Your task to perform on an android device: install app "Microsoft Outlook" Image 0: 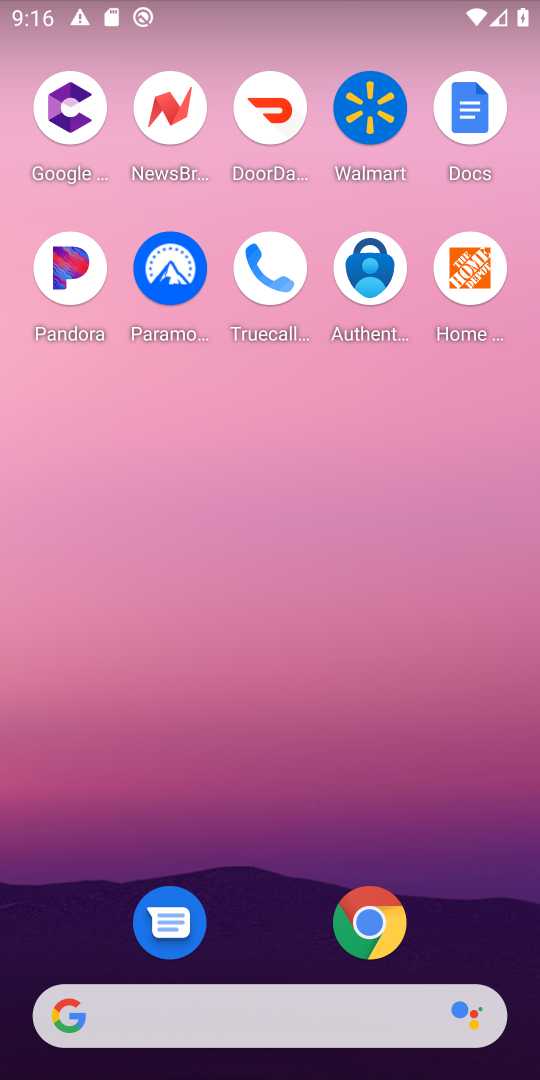
Step 0: drag from (302, 873) to (379, 193)
Your task to perform on an android device: install app "Microsoft Outlook" Image 1: 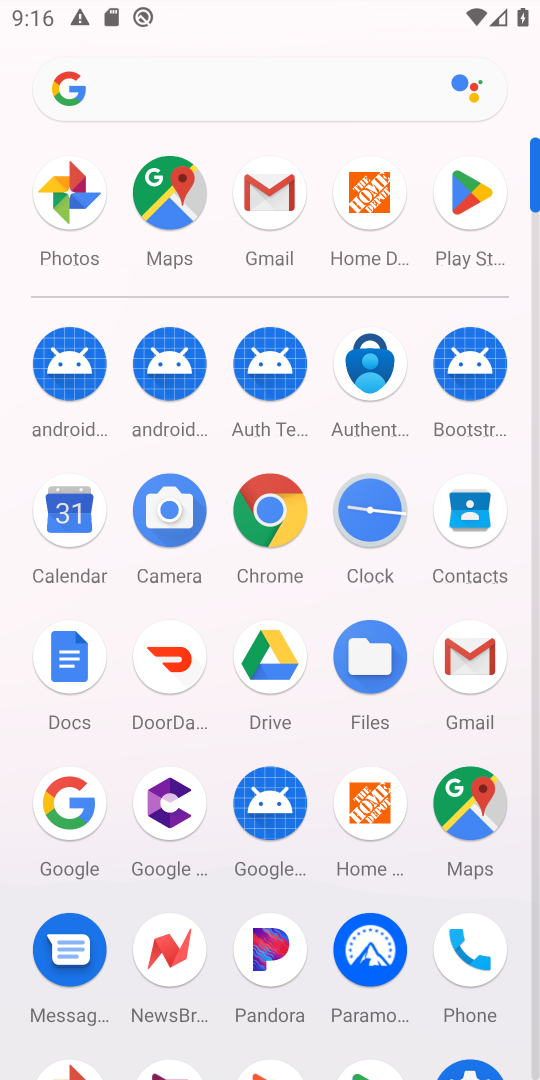
Step 1: click (488, 187)
Your task to perform on an android device: install app "Microsoft Outlook" Image 2: 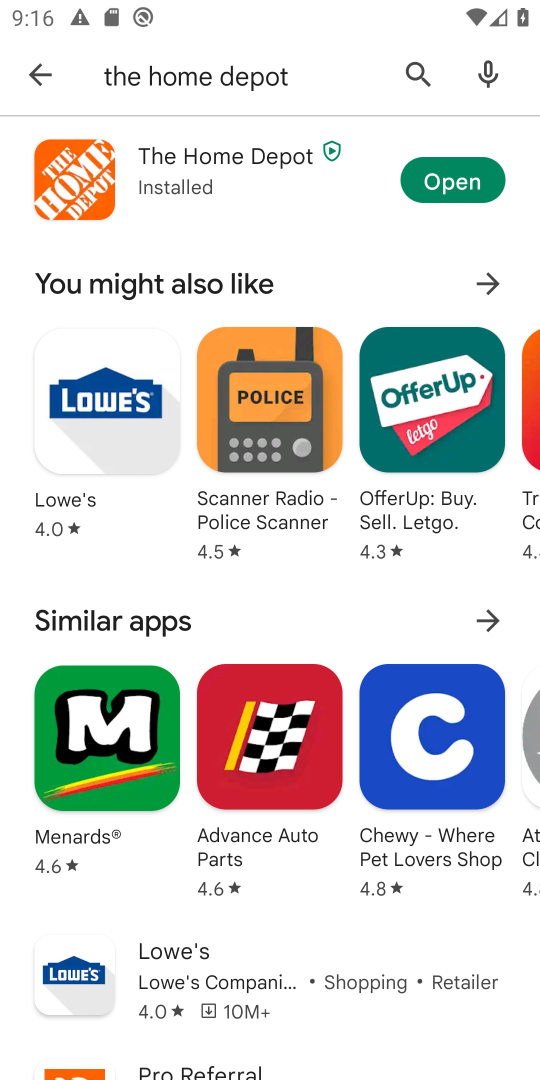
Step 2: click (412, 67)
Your task to perform on an android device: install app "Microsoft Outlook" Image 3: 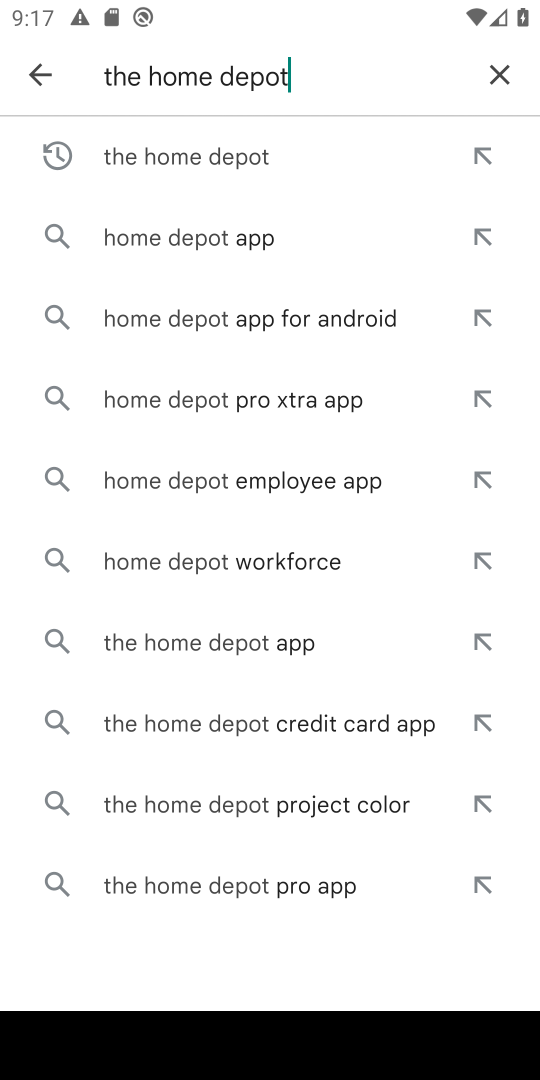
Step 3: click (494, 77)
Your task to perform on an android device: install app "Microsoft Outlook" Image 4: 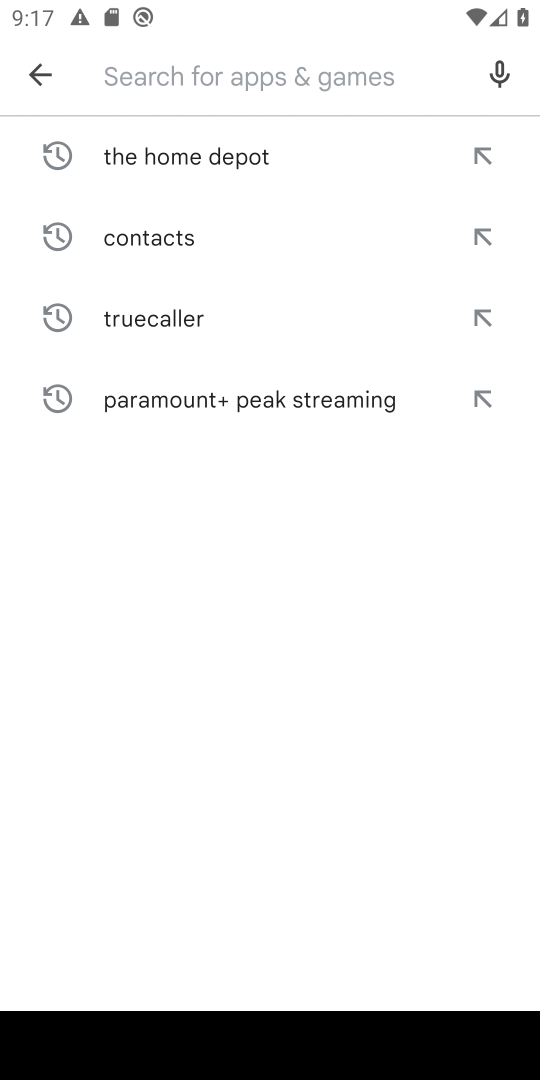
Step 4: type "Microsoft Outlook"
Your task to perform on an android device: install app "Microsoft Outlook" Image 5: 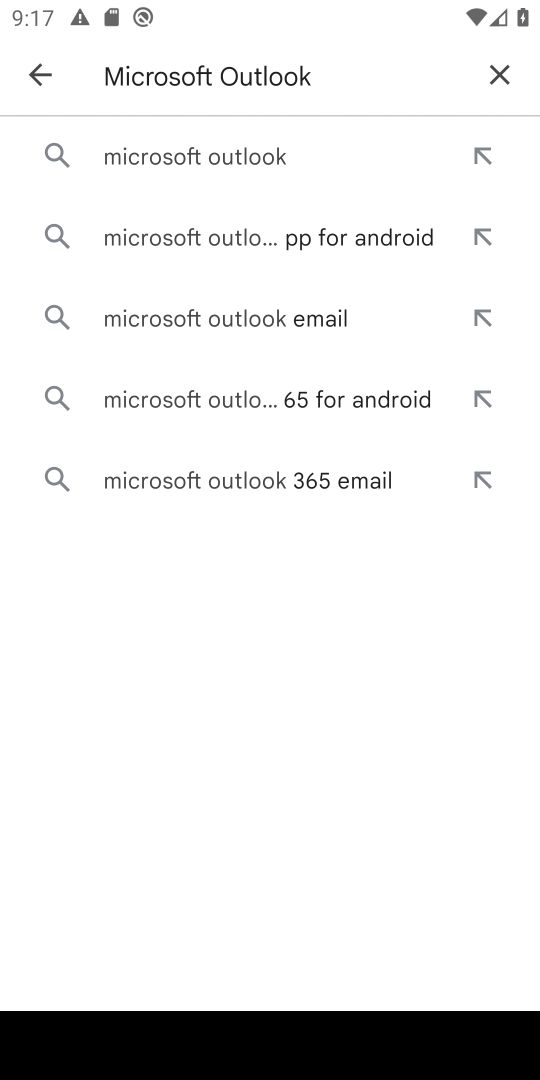
Step 5: click (134, 148)
Your task to perform on an android device: install app "Microsoft Outlook" Image 6: 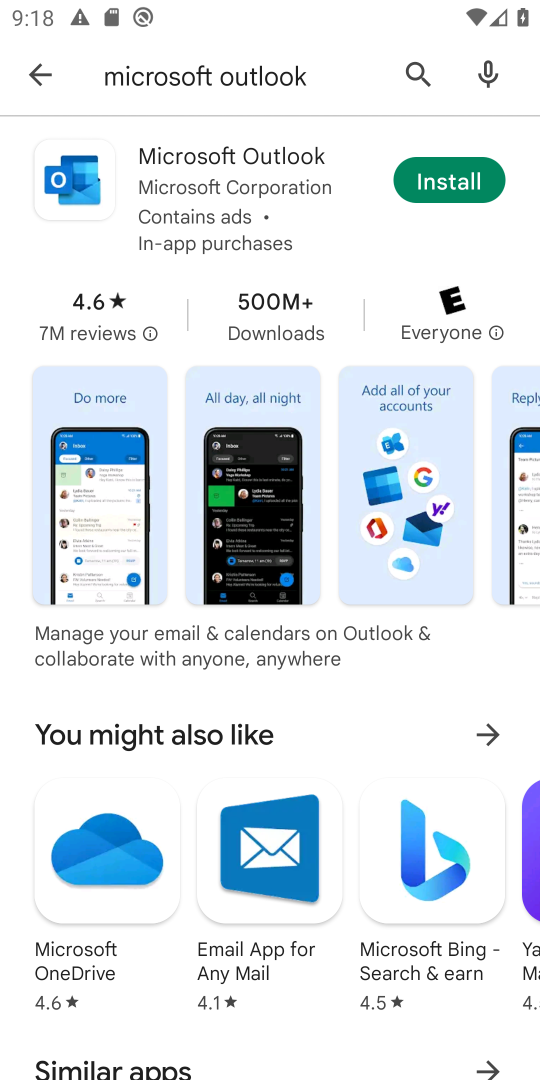
Step 6: click (453, 183)
Your task to perform on an android device: install app "Microsoft Outlook" Image 7: 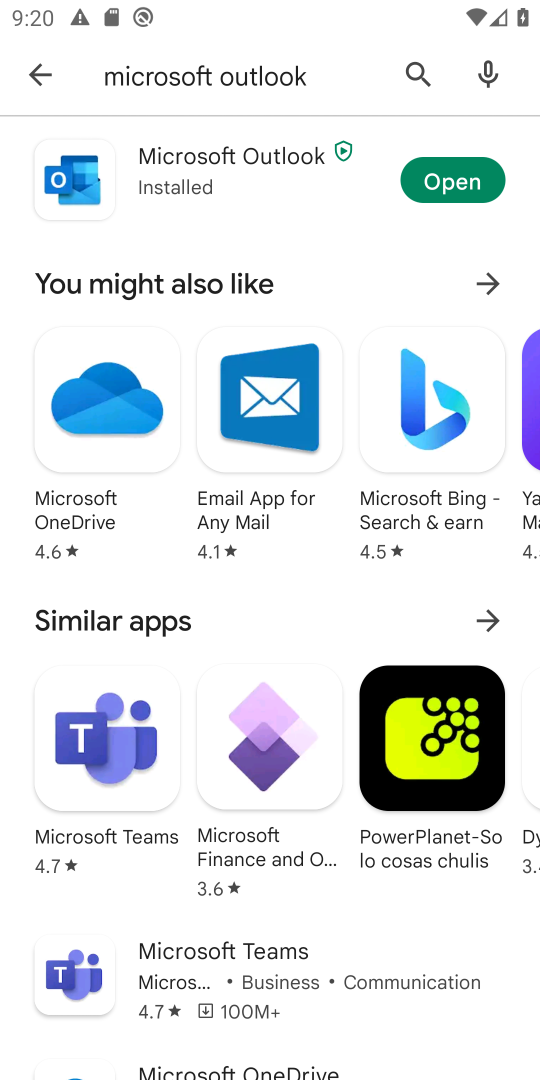
Step 7: task complete